Your task to perform on an android device: move a message to another label in the gmail app Image 0: 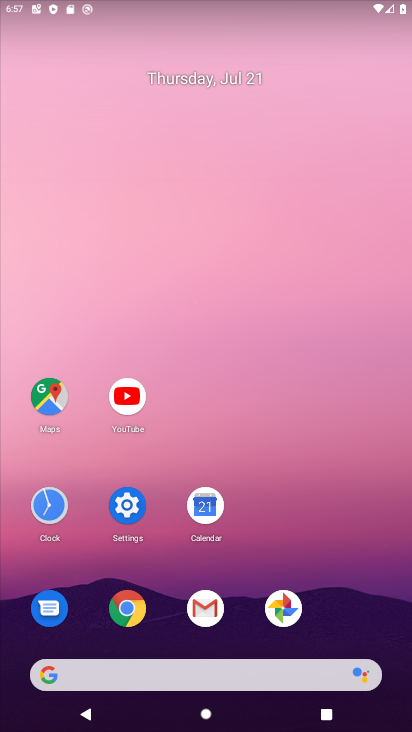
Step 0: click (209, 600)
Your task to perform on an android device: move a message to another label in the gmail app Image 1: 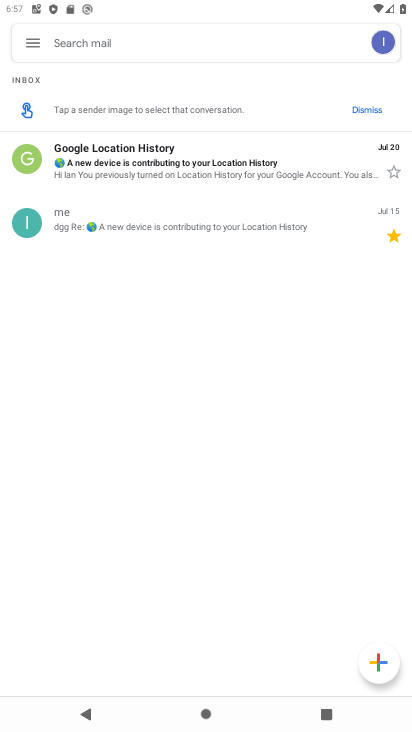
Step 1: click (102, 150)
Your task to perform on an android device: move a message to another label in the gmail app Image 2: 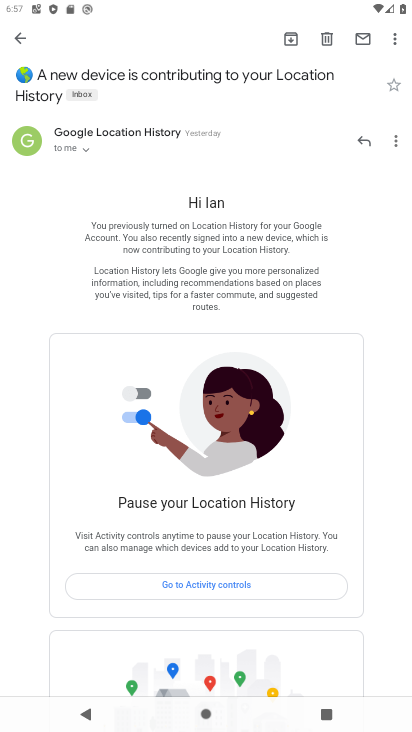
Step 2: click (396, 35)
Your task to perform on an android device: move a message to another label in the gmail app Image 3: 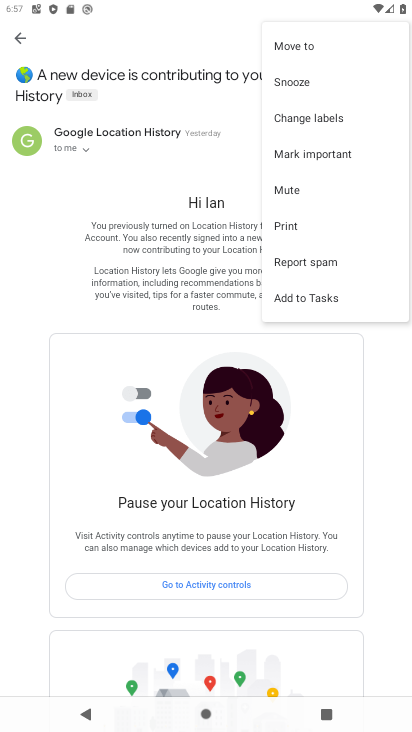
Step 3: click (320, 120)
Your task to perform on an android device: move a message to another label in the gmail app Image 4: 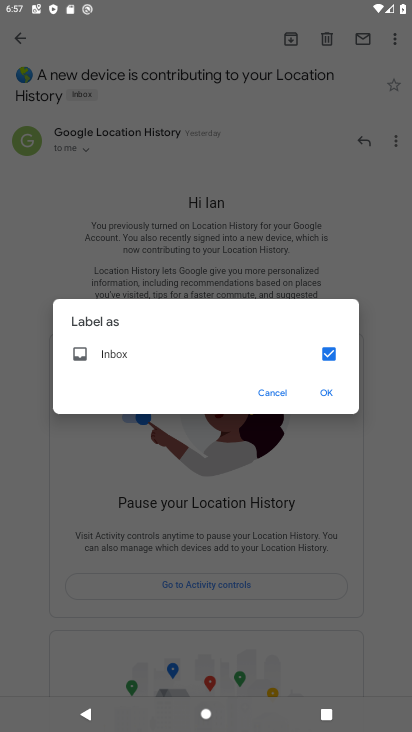
Step 4: click (326, 391)
Your task to perform on an android device: move a message to another label in the gmail app Image 5: 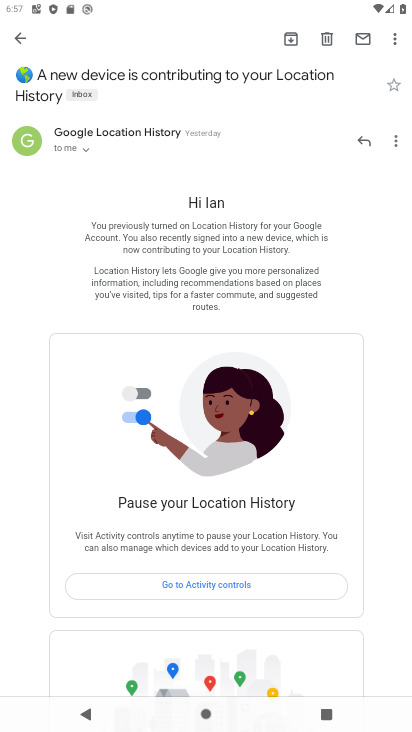
Step 5: task complete